Your task to perform on an android device: change text size in settings app Image 0: 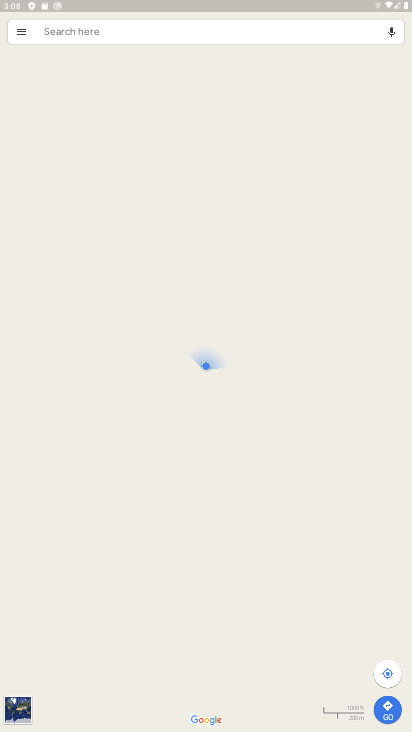
Step 0: press home button
Your task to perform on an android device: change text size in settings app Image 1: 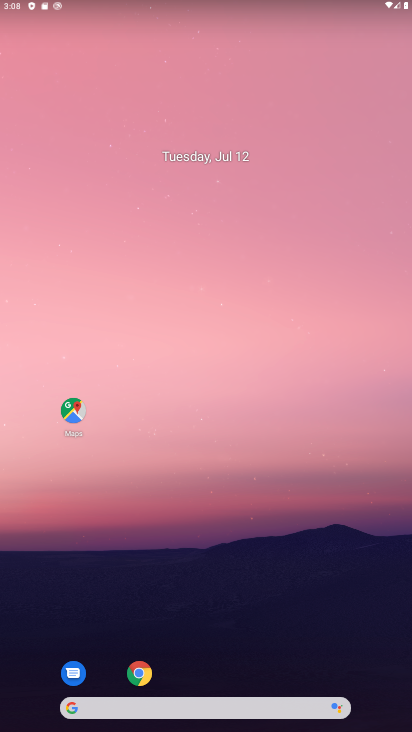
Step 1: drag from (253, 622) to (246, 121)
Your task to perform on an android device: change text size in settings app Image 2: 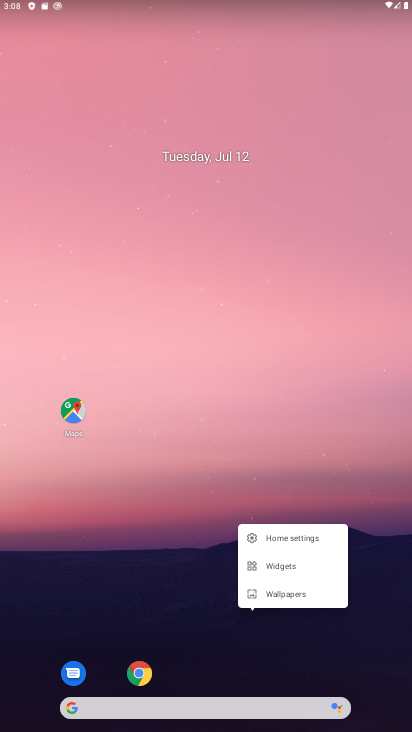
Step 2: click (265, 675)
Your task to perform on an android device: change text size in settings app Image 3: 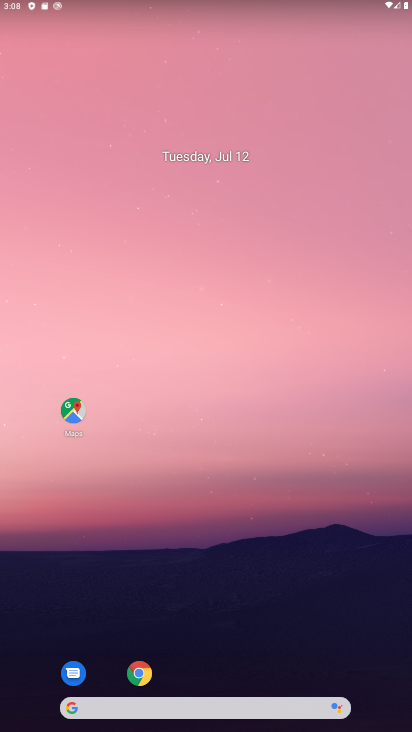
Step 3: drag from (265, 675) to (267, 305)
Your task to perform on an android device: change text size in settings app Image 4: 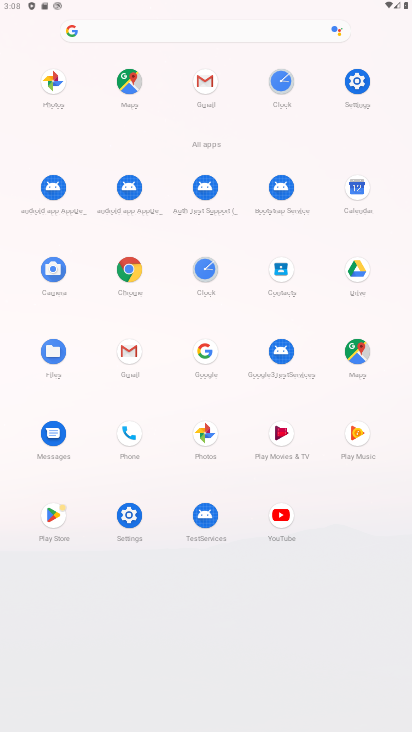
Step 4: click (348, 91)
Your task to perform on an android device: change text size in settings app Image 5: 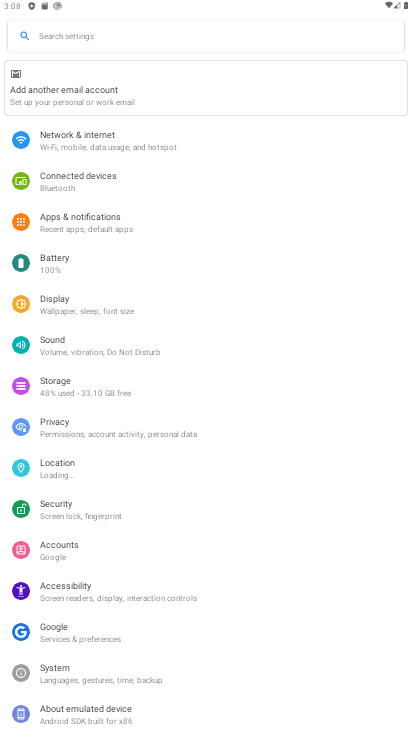
Step 5: click (115, 304)
Your task to perform on an android device: change text size in settings app Image 6: 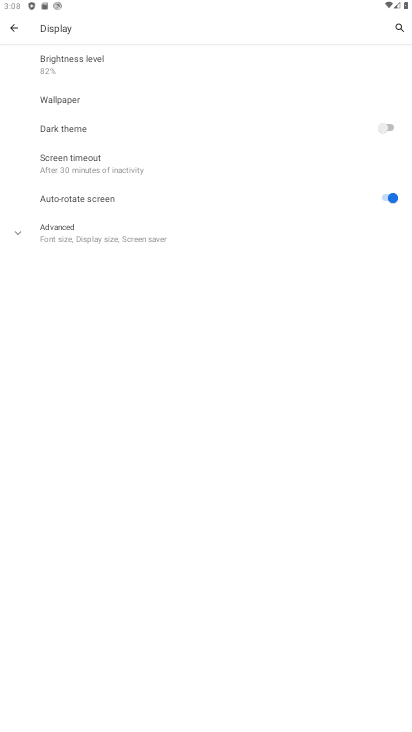
Step 6: click (200, 227)
Your task to perform on an android device: change text size in settings app Image 7: 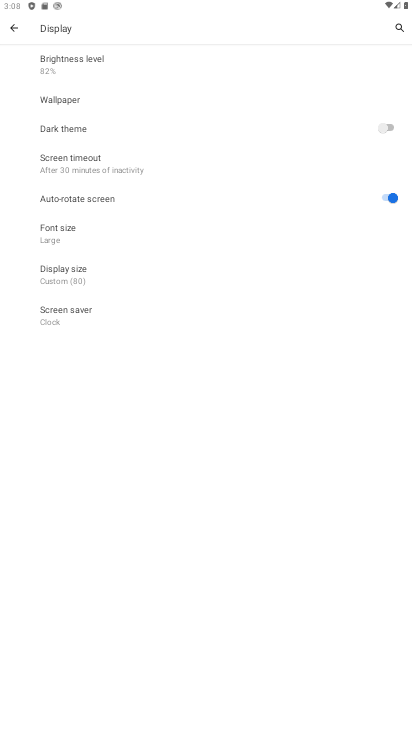
Step 7: click (87, 237)
Your task to perform on an android device: change text size in settings app Image 8: 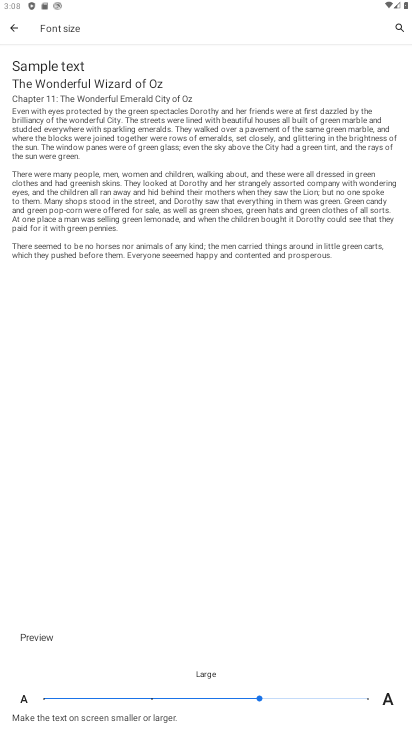
Step 8: click (367, 699)
Your task to perform on an android device: change text size in settings app Image 9: 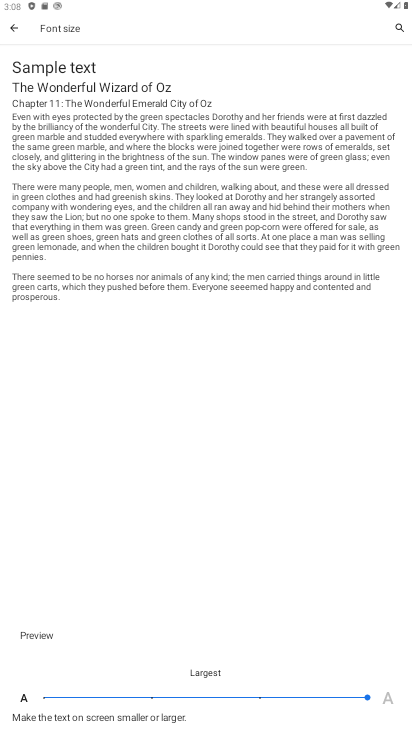
Step 9: task complete